Your task to perform on an android device: Open Android settings Image 0: 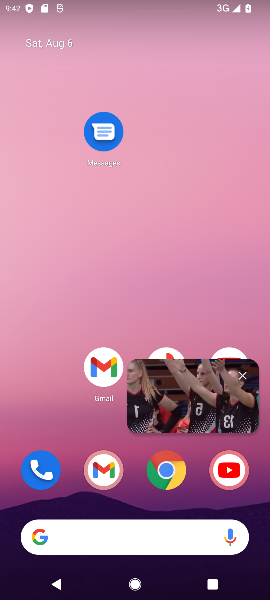
Step 0: click (246, 370)
Your task to perform on an android device: Open Android settings Image 1: 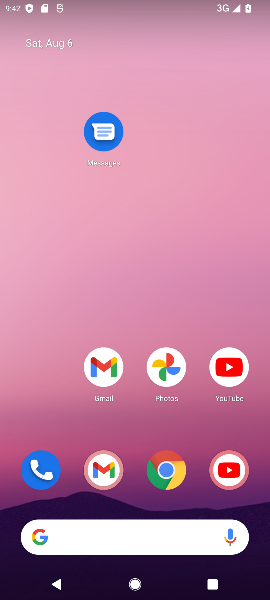
Step 1: drag from (133, 518) to (135, 85)
Your task to perform on an android device: Open Android settings Image 2: 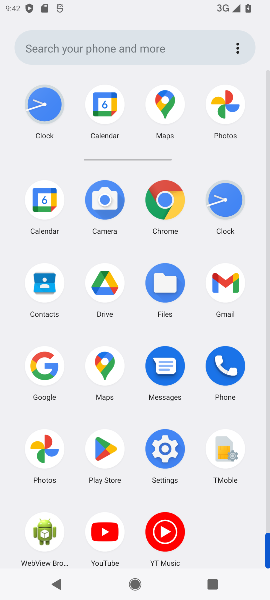
Step 2: click (178, 452)
Your task to perform on an android device: Open Android settings Image 3: 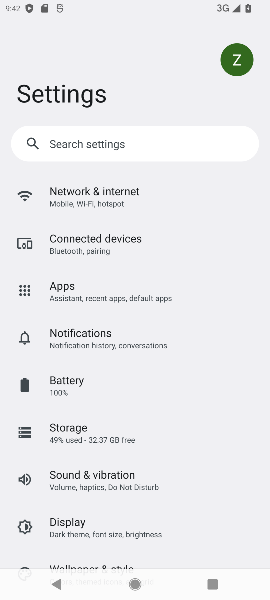
Step 3: drag from (117, 527) to (117, 225)
Your task to perform on an android device: Open Android settings Image 4: 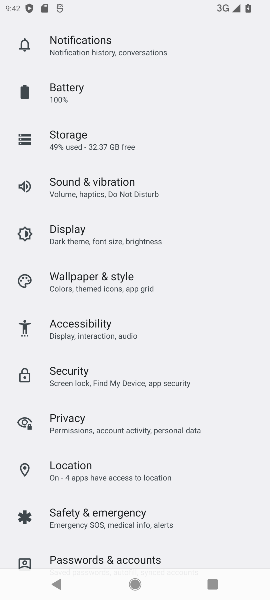
Step 4: drag from (113, 460) to (95, 127)
Your task to perform on an android device: Open Android settings Image 5: 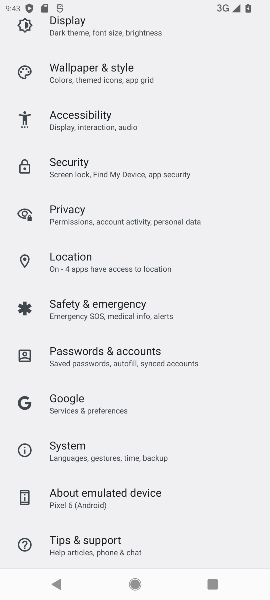
Step 5: drag from (90, 459) to (84, 201)
Your task to perform on an android device: Open Android settings Image 6: 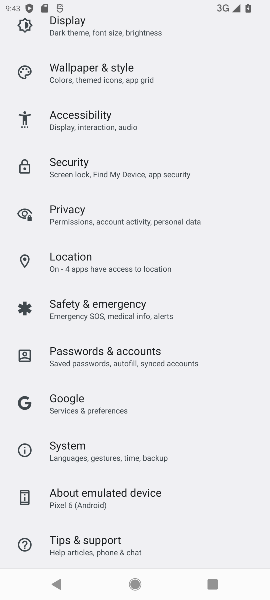
Step 6: click (109, 496)
Your task to perform on an android device: Open Android settings Image 7: 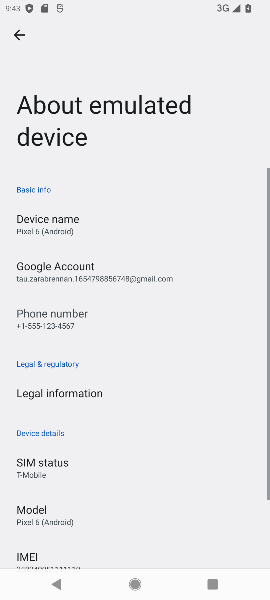
Step 7: task complete